Your task to perform on an android device: check storage Image 0: 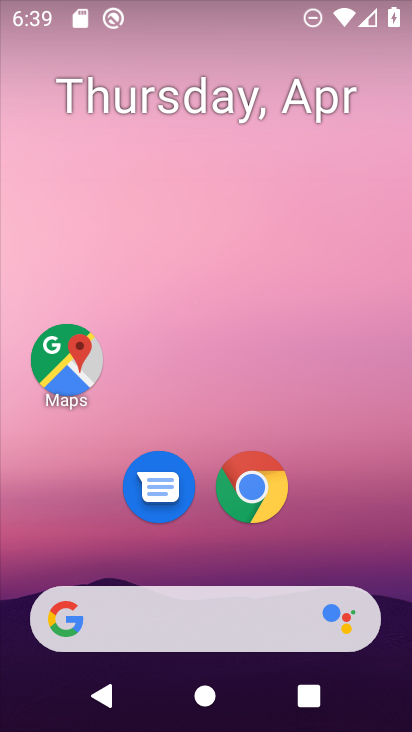
Step 0: drag from (325, 445) to (220, 73)
Your task to perform on an android device: check storage Image 1: 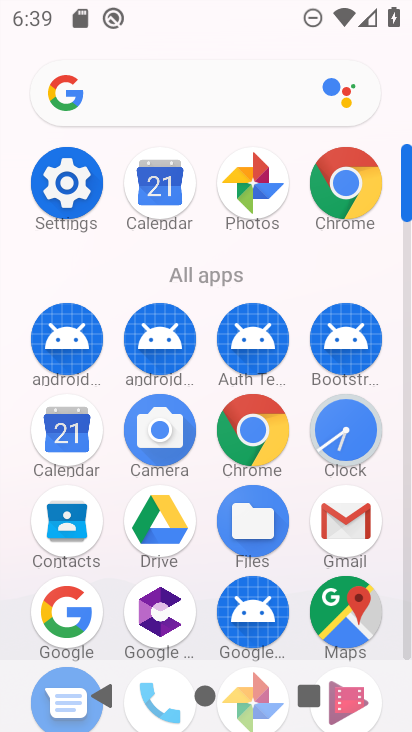
Step 1: click (48, 187)
Your task to perform on an android device: check storage Image 2: 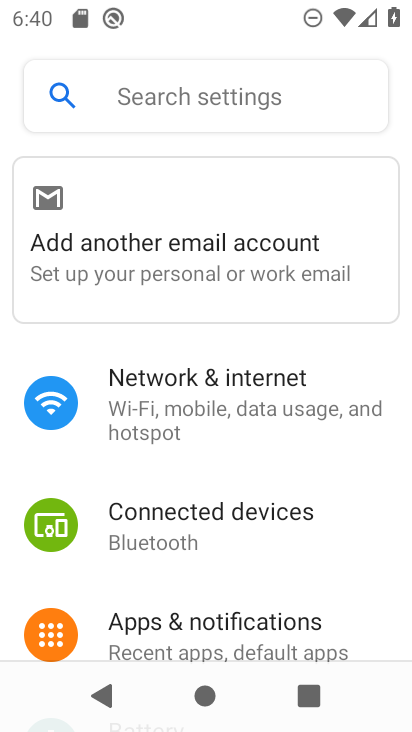
Step 2: drag from (279, 570) to (279, 94)
Your task to perform on an android device: check storage Image 3: 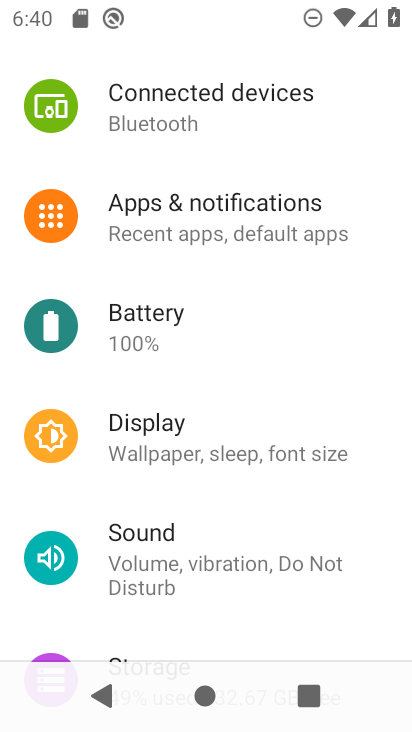
Step 3: drag from (226, 578) to (209, 281)
Your task to perform on an android device: check storage Image 4: 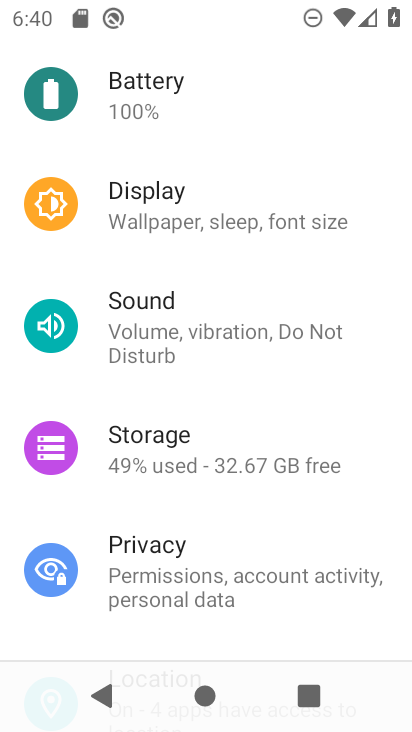
Step 4: drag from (192, 485) to (153, 239)
Your task to perform on an android device: check storage Image 5: 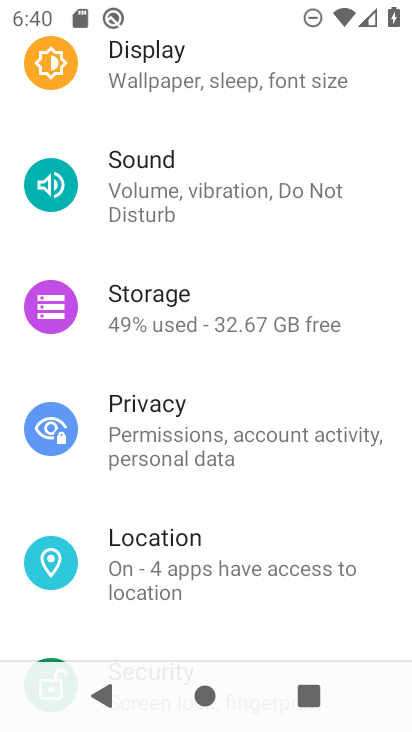
Step 5: click (162, 319)
Your task to perform on an android device: check storage Image 6: 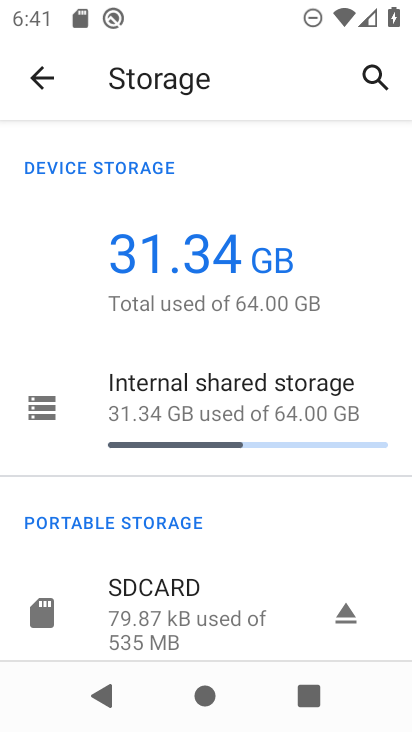
Step 6: task complete